Your task to perform on an android device: turn notification dots off Image 0: 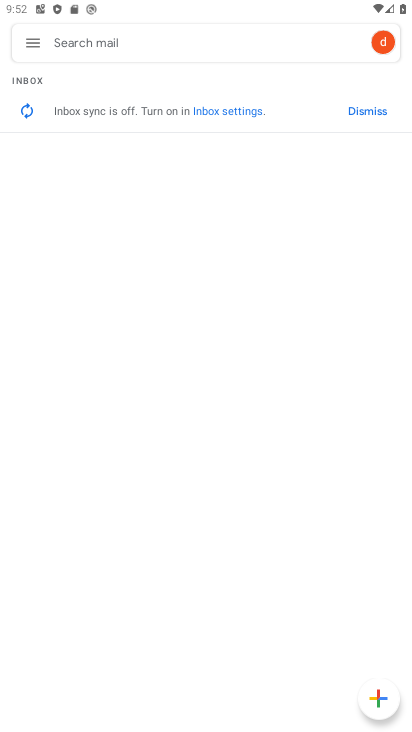
Step 0: press home button
Your task to perform on an android device: turn notification dots off Image 1: 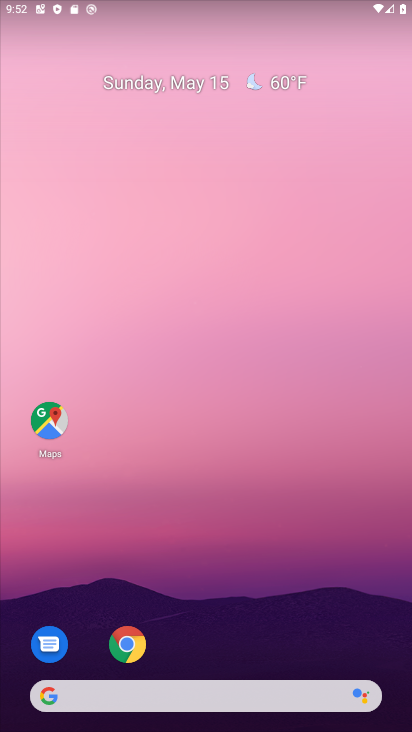
Step 1: drag from (213, 468) to (213, 133)
Your task to perform on an android device: turn notification dots off Image 2: 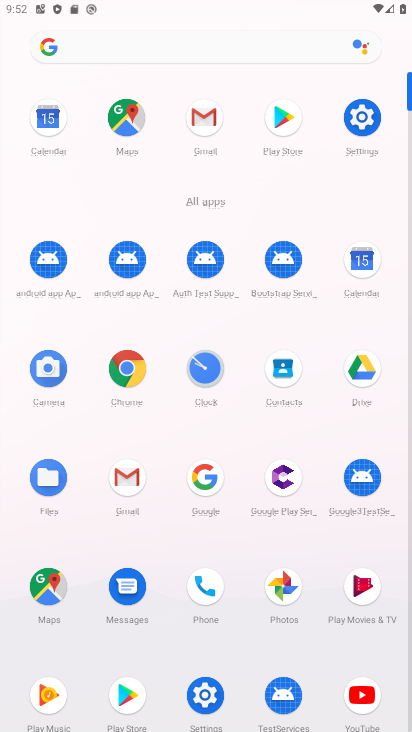
Step 2: click (367, 112)
Your task to perform on an android device: turn notification dots off Image 3: 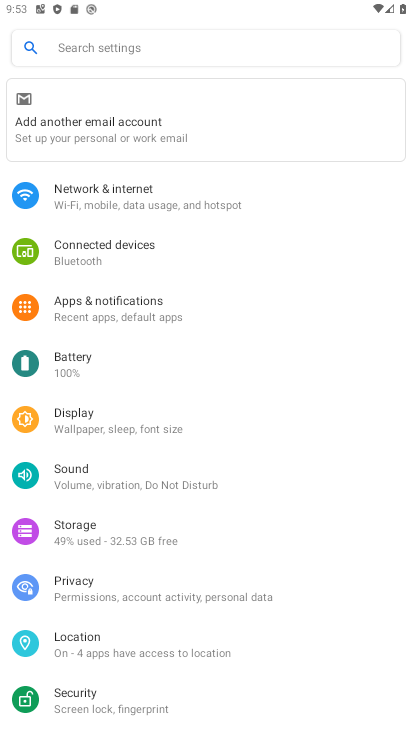
Step 3: click (124, 300)
Your task to perform on an android device: turn notification dots off Image 4: 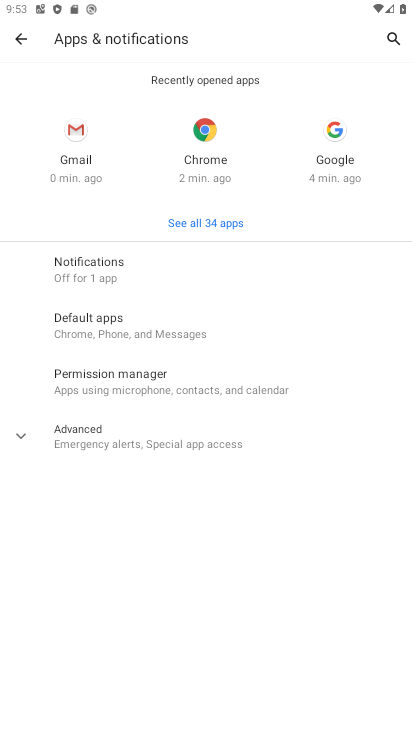
Step 4: click (100, 264)
Your task to perform on an android device: turn notification dots off Image 5: 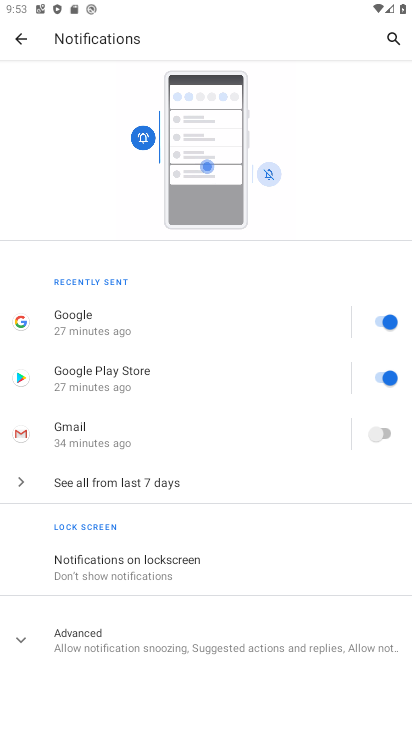
Step 5: drag from (267, 618) to (238, 268)
Your task to perform on an android device: turn notification dots off Image 6: 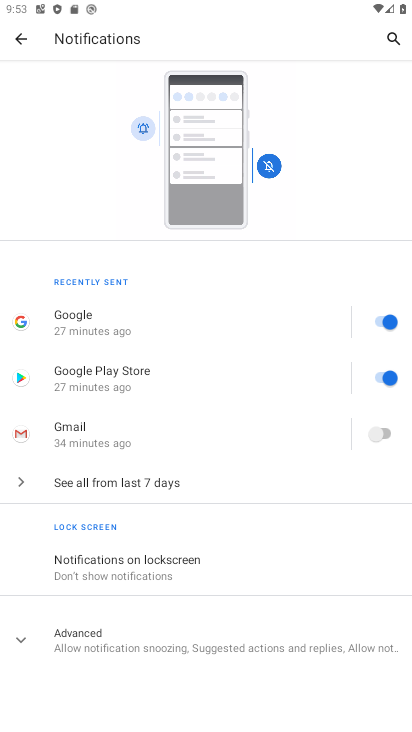
Step 6: click (137, 641)
Your task to perform on an android device: turn notification dots off Image 7: 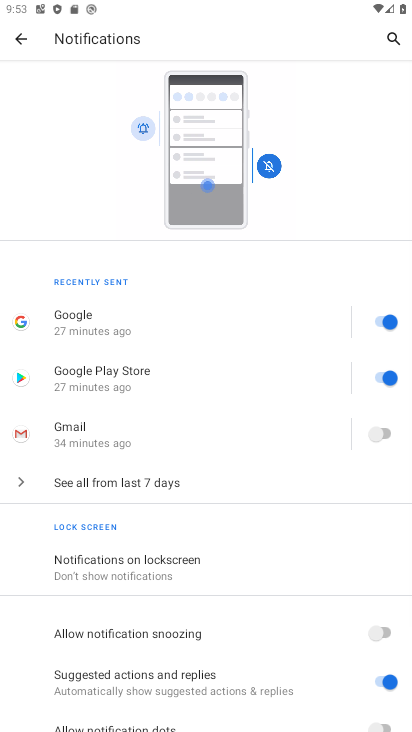
Step 7: task complete